Your task to perform on an android device: Open calendar and show me the third week of next month Image 0: 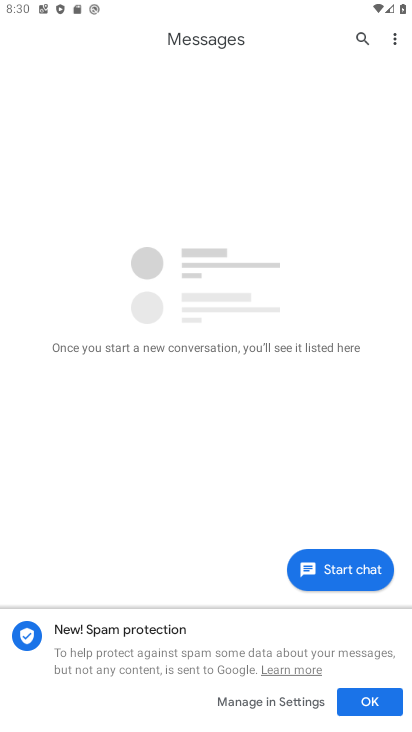
Step 0: press back button
Your task to perform on an android device: Open calendar and show me the third week of next month Image 1: 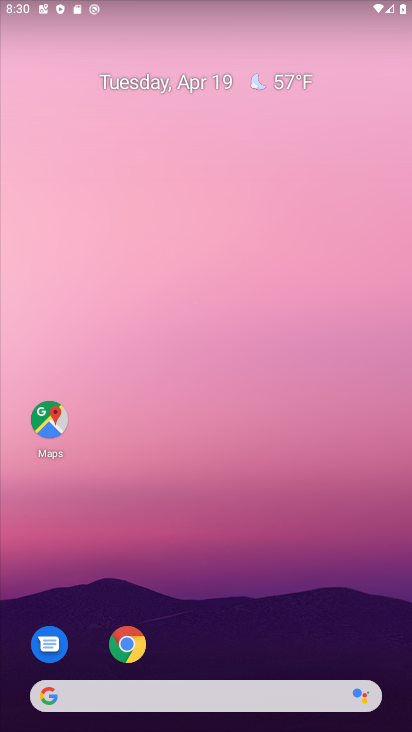
Step 1: drag from (187, 615) to (282, 115)
Your task to perform on an android device: Open calendar and show me the third week of next month Image 2: 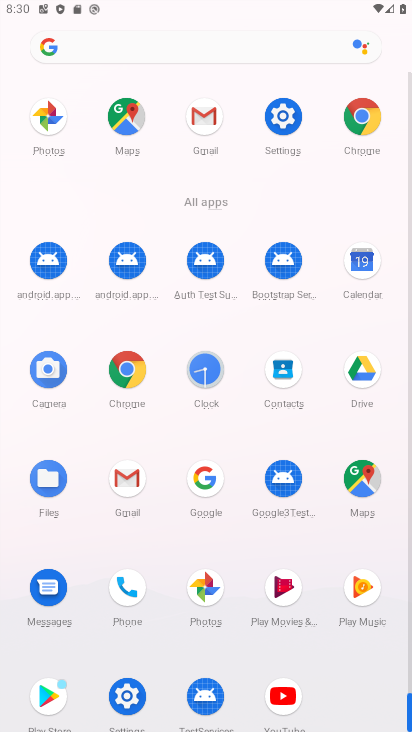
Step 2: click (368, 262)
Your task to perform on an android device: Open calendar and show me the third week of next month Image 3: 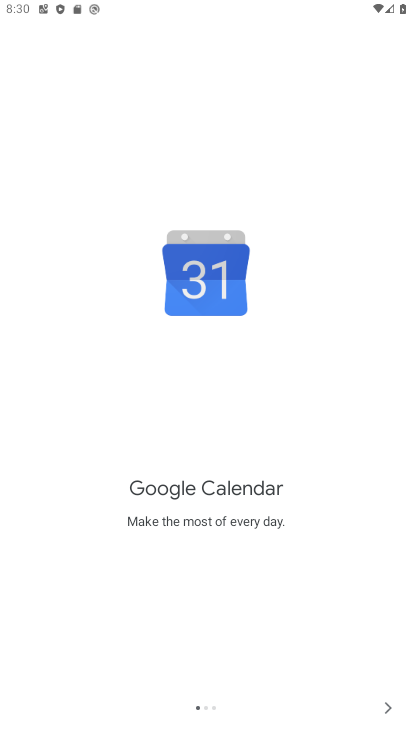
Step 3: click (388, 708)
Your task to perform on an android device: Open calendar and show me the third week of next month Image 4: 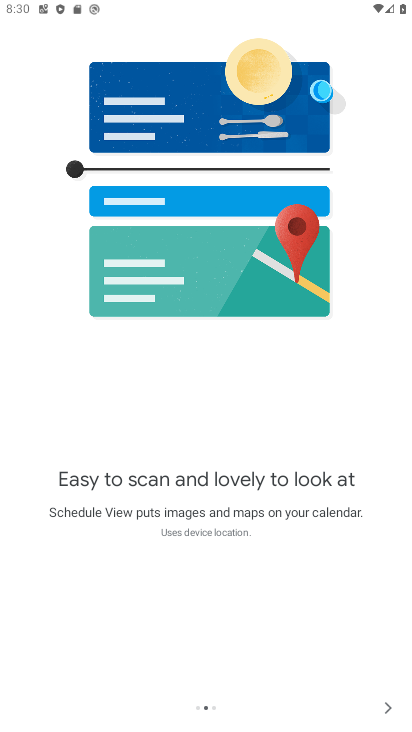
Step 4: click (389, 707)
Your task to perform on an android device: Open calendar and show me the third week of next month Image 5: 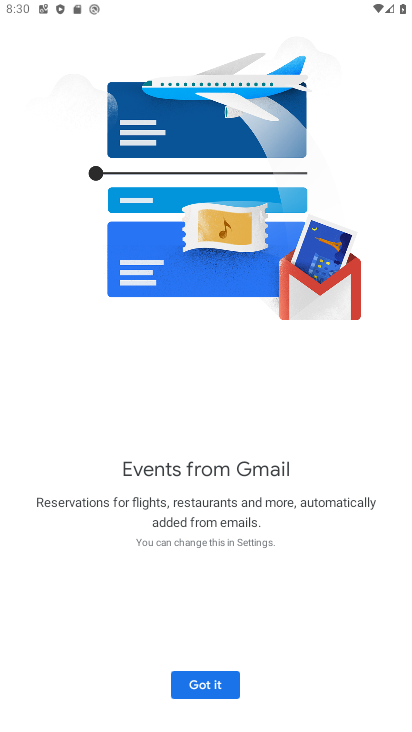
Step 5: click (205, 683)
Your task to perform on an android device: Open calendar and show me the third week of next month Image 6: 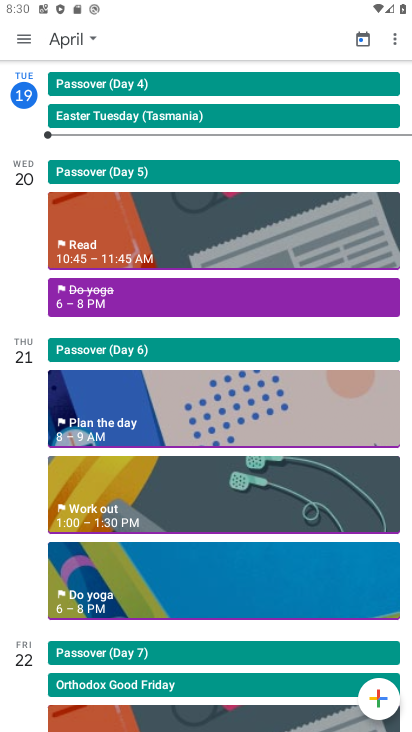
Step 6: click (80, 34)
Your task to perform on an android device: Open calendar and show me the third week of next month Image 7: 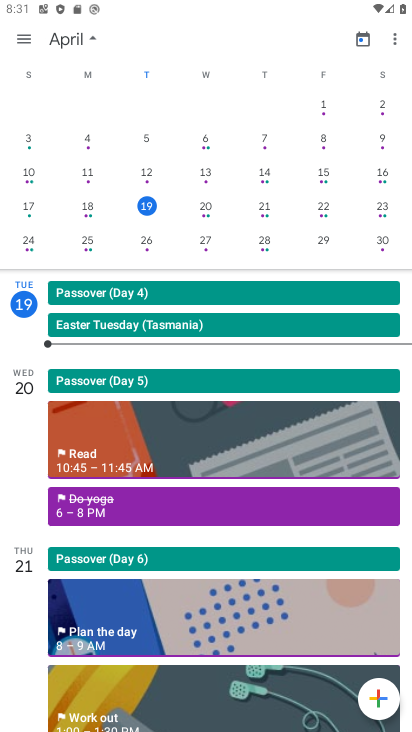
Step 7: drag from (391, 192) to (9, 183)
Your task to perform on an android device: Open calendar and show me the third week of next month Image 8: 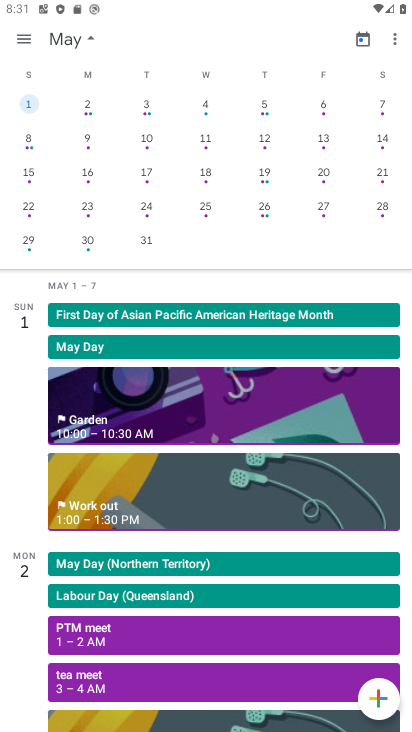
Step 8: click (26, 170)
Your task to perform on an android device: Open calendar and show me the third week of next month Image 9: 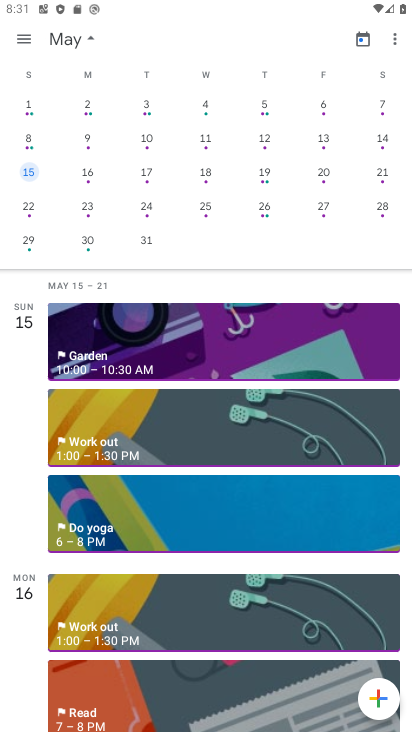
Step 9: click (28, 34)
Your task to perform on an android device: Open calendar and show me the third week of next month Image 10: 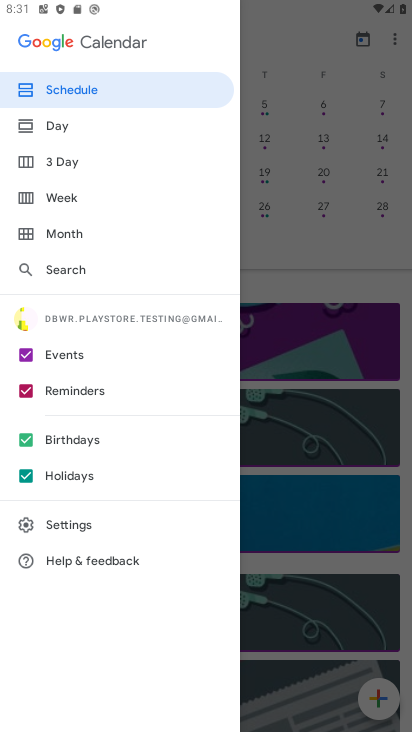
Step 10: click (99, 198)
Your task to perform on an android device: Open calendar and show me the third week of next month Image 11: 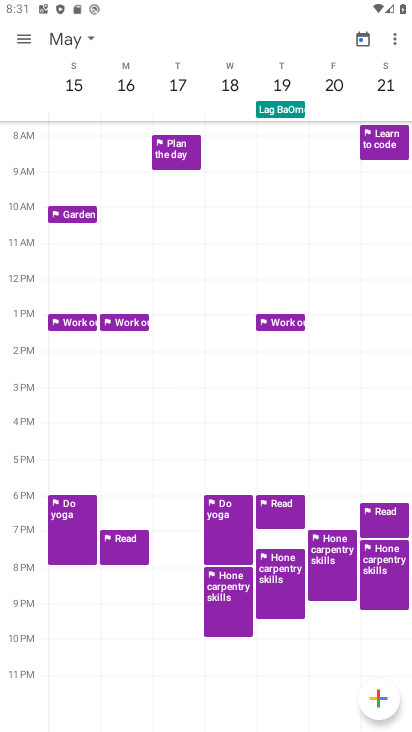
Step 11: task complete